Your task to perform on an android device: What is the news today? Image 0: 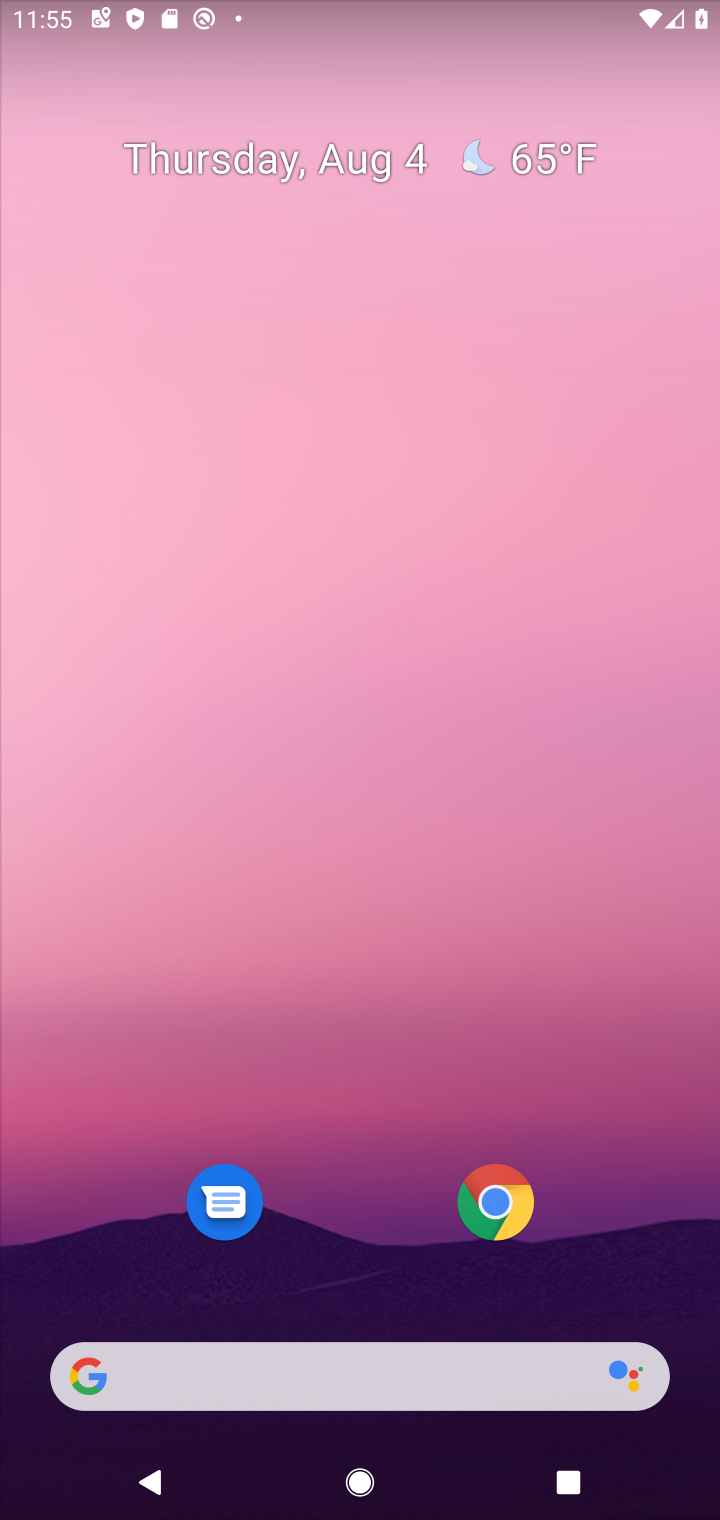
Step 0: click (382, 1396)
Your task to perform on an android device: What is the news today? Image 1: 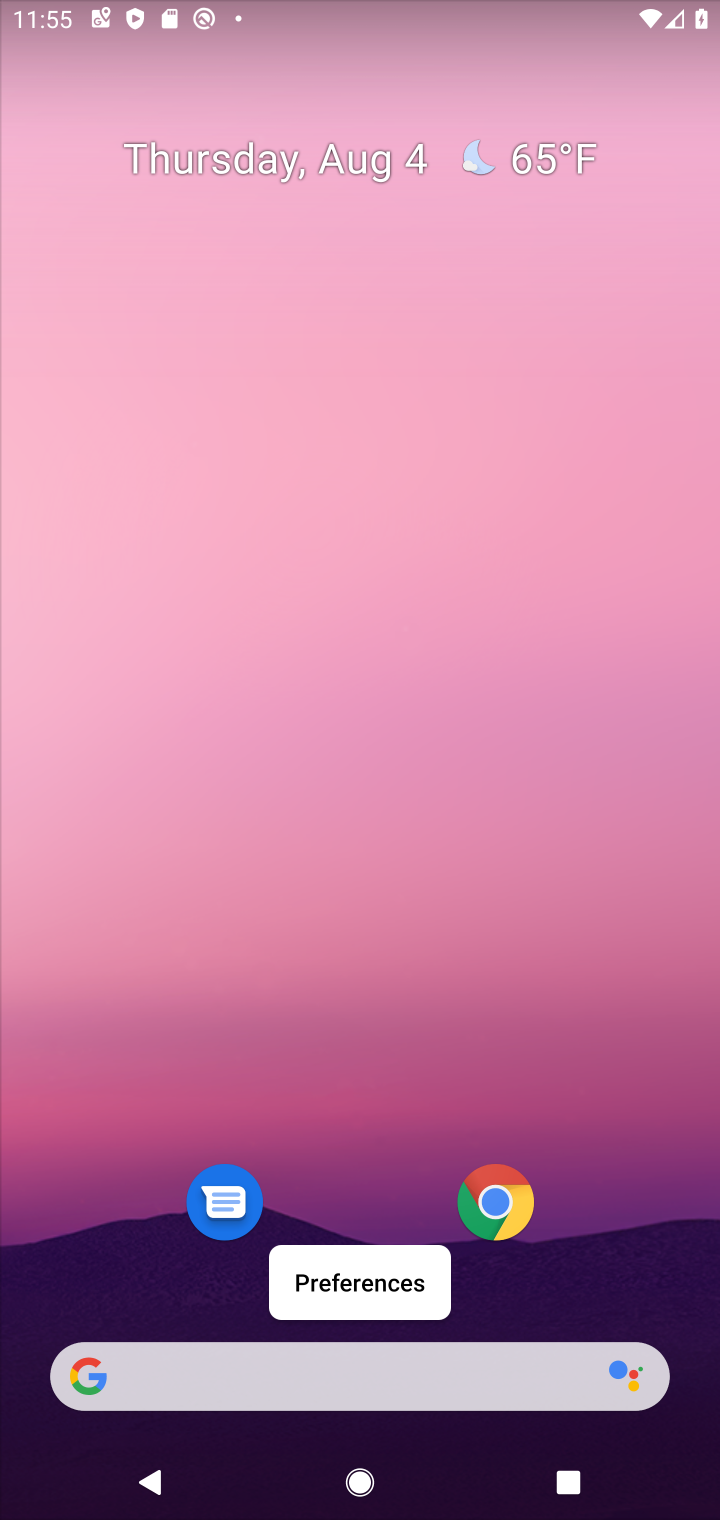
Step 1: click (396, 1386)
Your task to perform on an android device: What is the news today? Image 2: 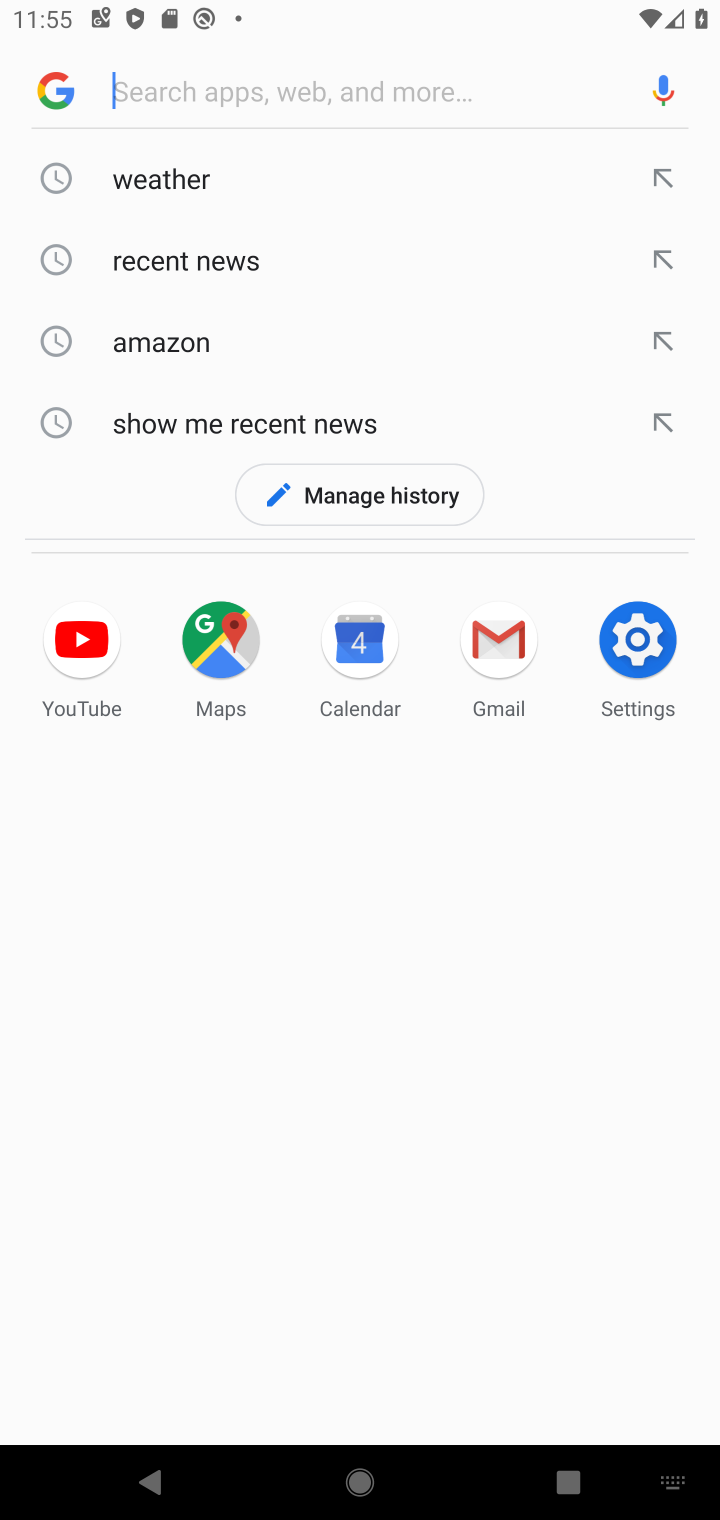
Step 2: click (257, 90)
Your task to perform on an android device: What is the news today? Image 3: 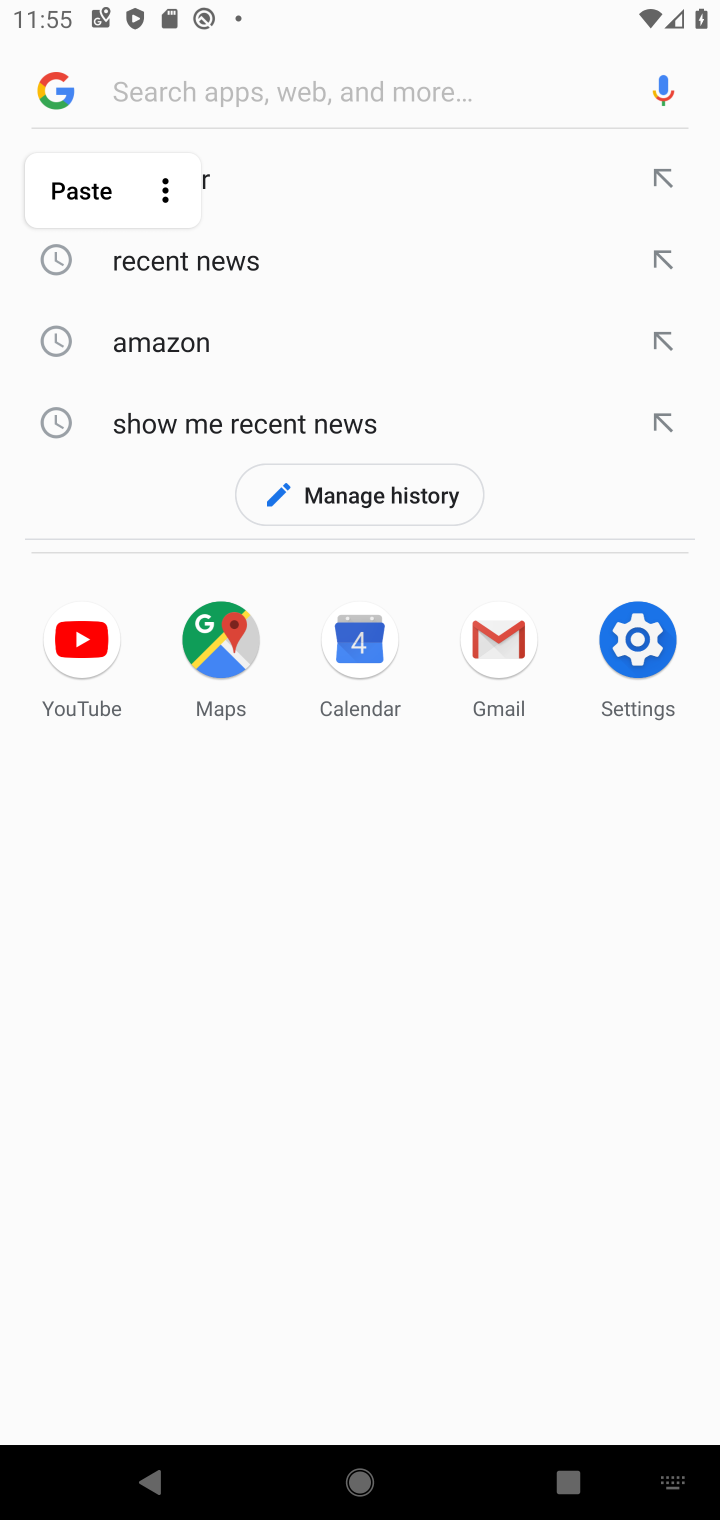
Step 3: type "news today"
Your task to perform on an android device: What is the news today? Image 4: 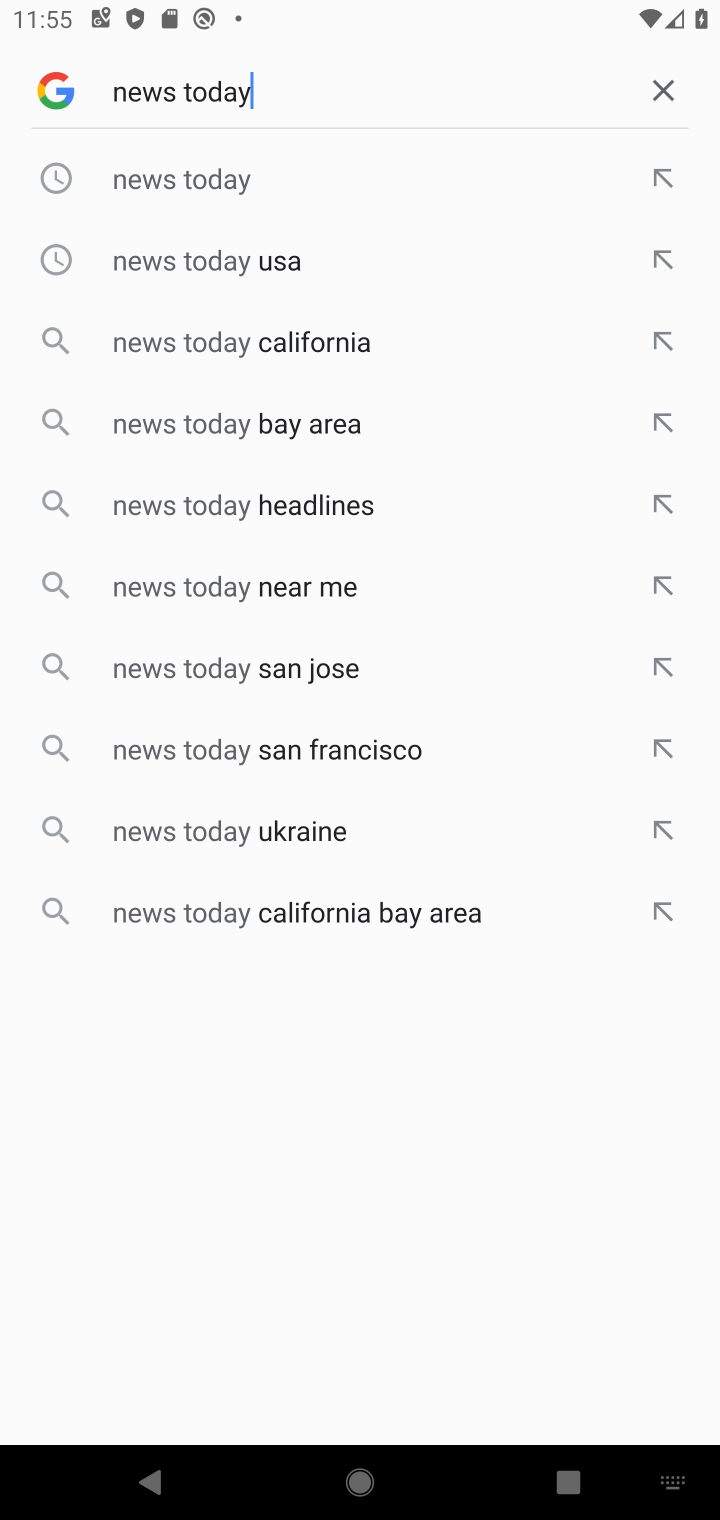
Step 4: click (309, 74)
Your task to perform on an android device: What is the news today? Image 5: 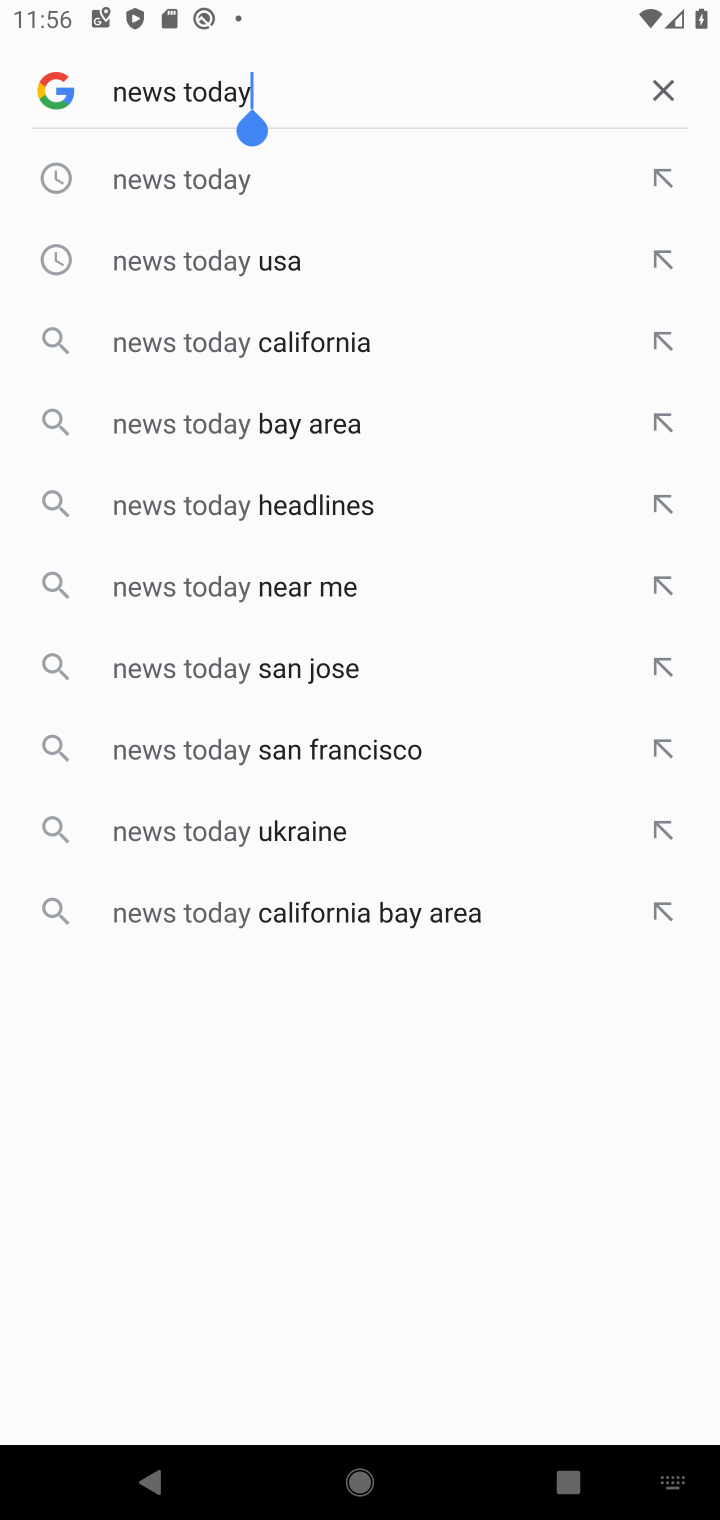
Step 5: click (210, 174)
Your task to perform on an android device: What is the news today? Image 6: 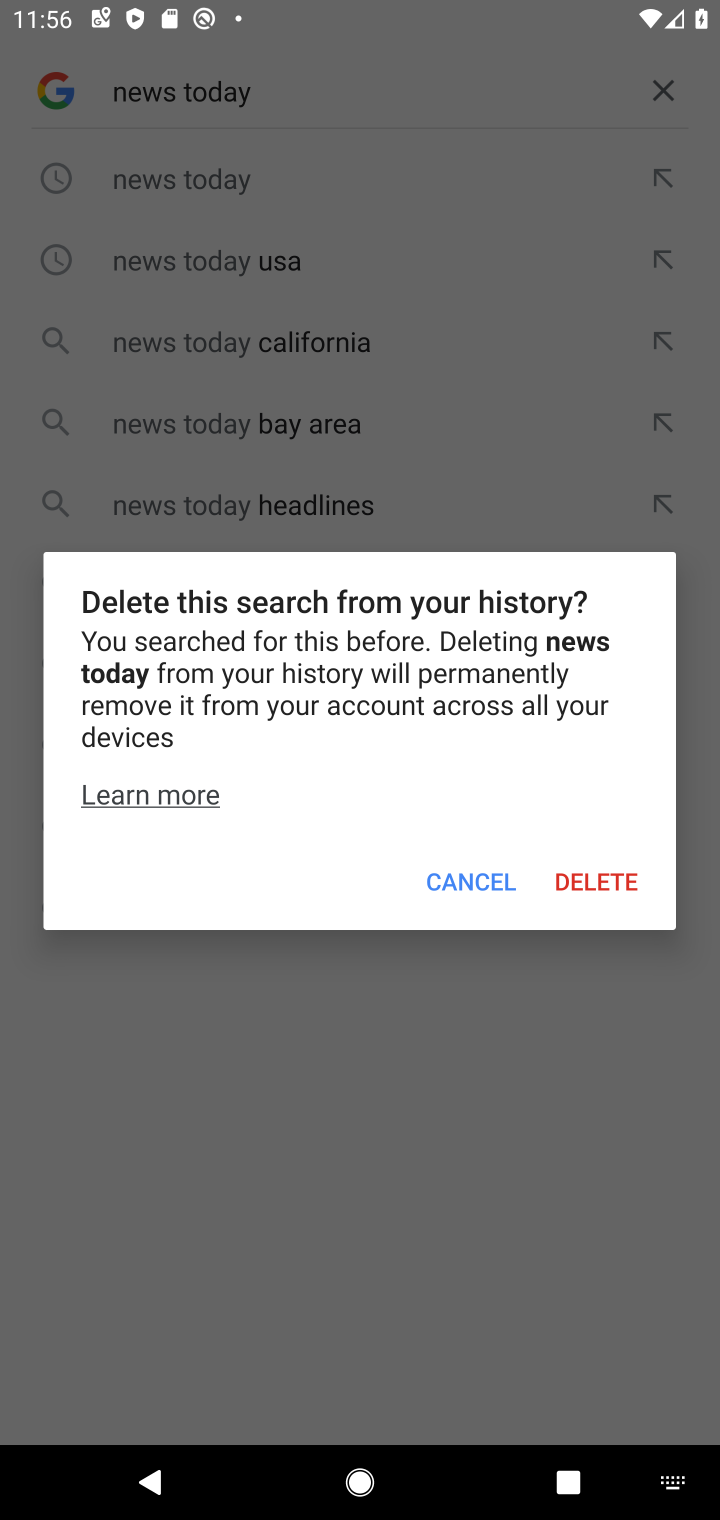
Step 6: click (495, 887)
Your task to perform on an android device: What is the news today? Image 7: 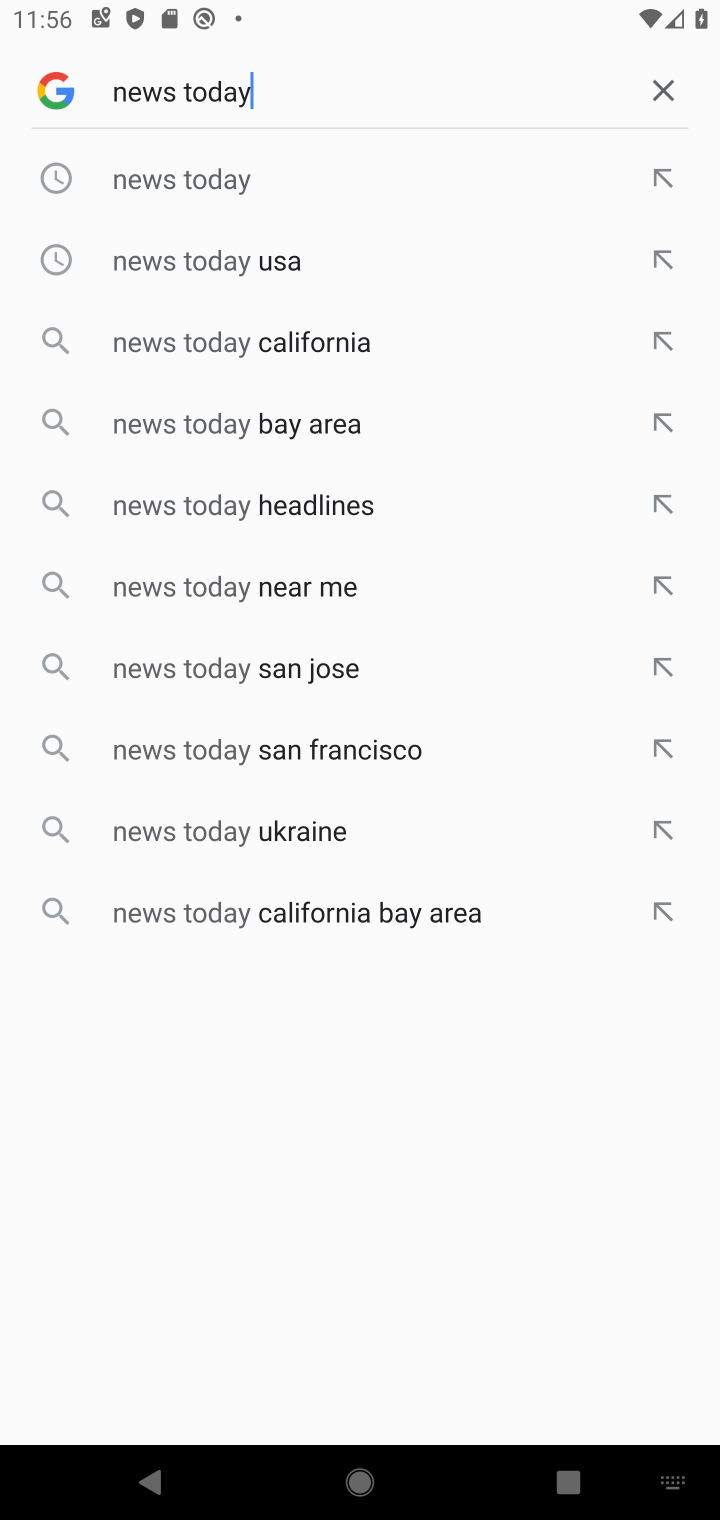
Step 7: click (277, 181)
Your task to perform on an android device: What is the news today? Image 8: 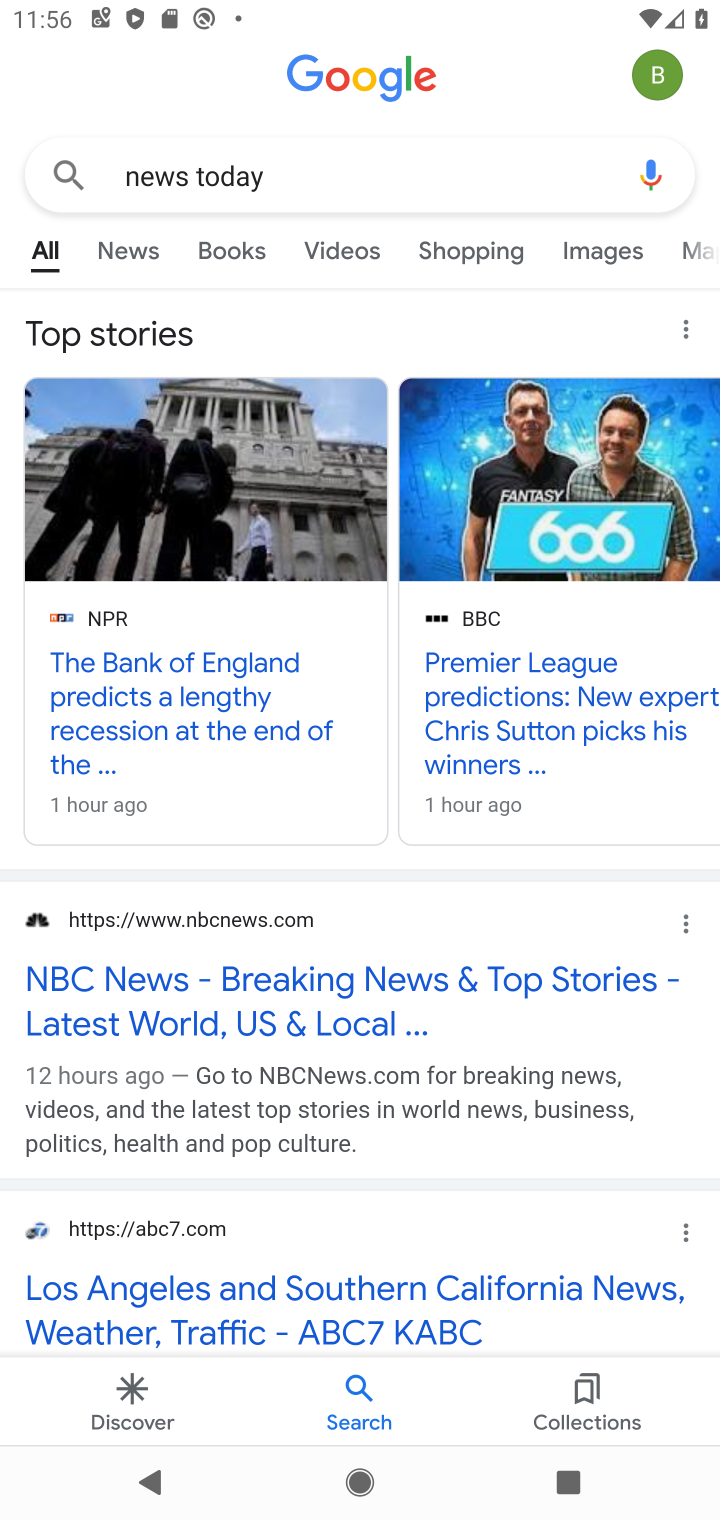
Step 8: task complete